Your task to perform on an android device: Turn on the flashlight Image 0: 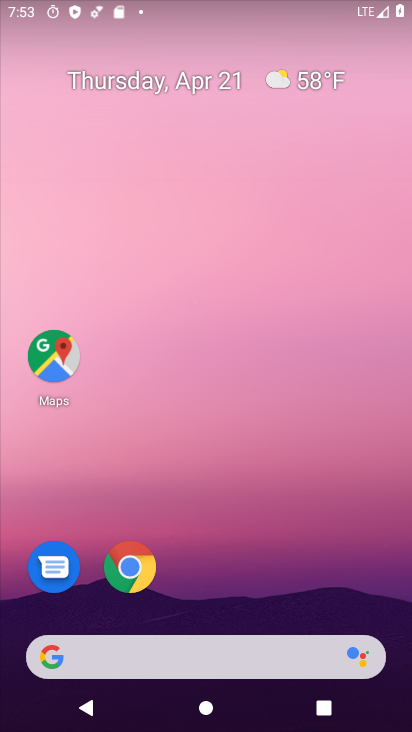
Step 0: drag from (215, 591) to (215, 63)
Your task to perform on an android device: Turn on the flashlight Image 1: 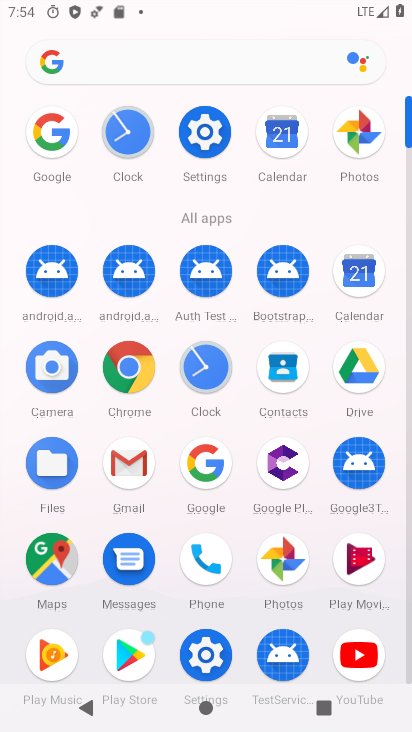
Step 1: click (207, 136)
Your task to perform on an android device: Turn on the flashlight Image 2: 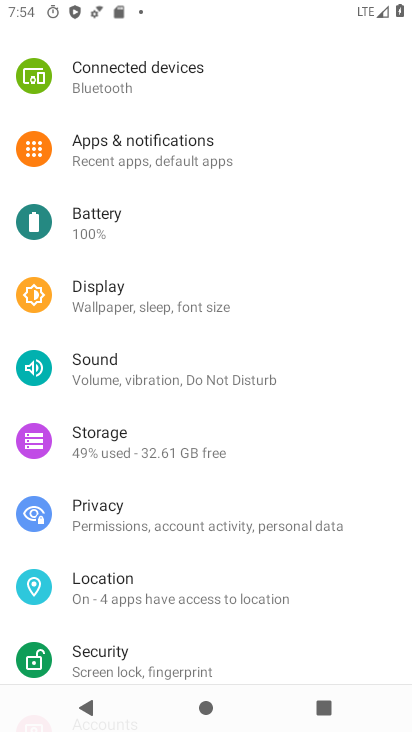
Step 2: drag from (166, 496) to (198, 414)
Your task to perform on an android device: Turn on the flashlight Image 3: 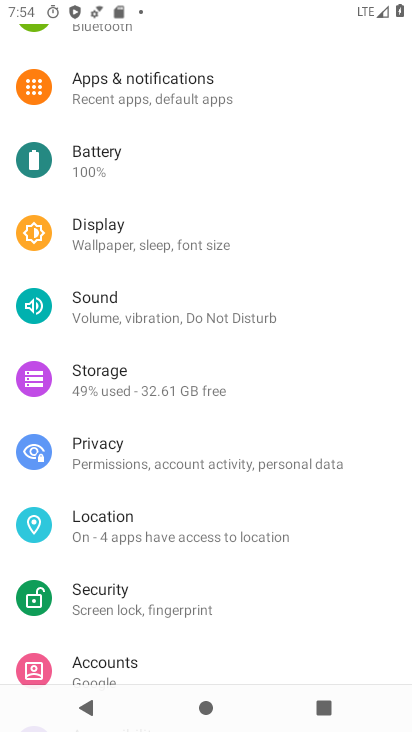
Step 3: drag from (164, 489) to (218, 402)
Your task to perform on an android device: Turn on the flashlight Image 4: 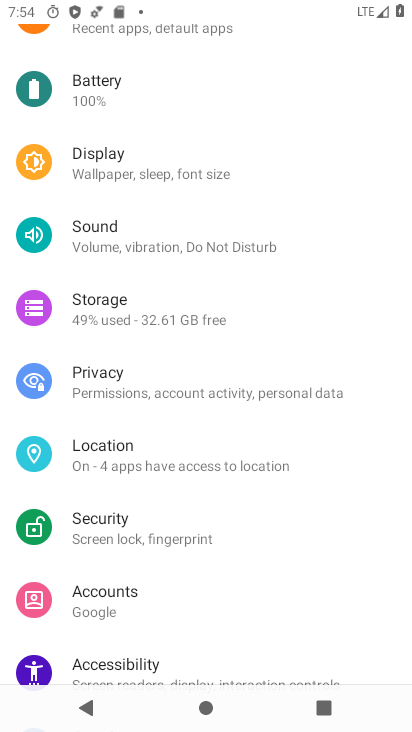
Step 4: drag from (162, 495) to (220, 416)
Your task to perform on an android device: Turn on the flashlight Image 5: 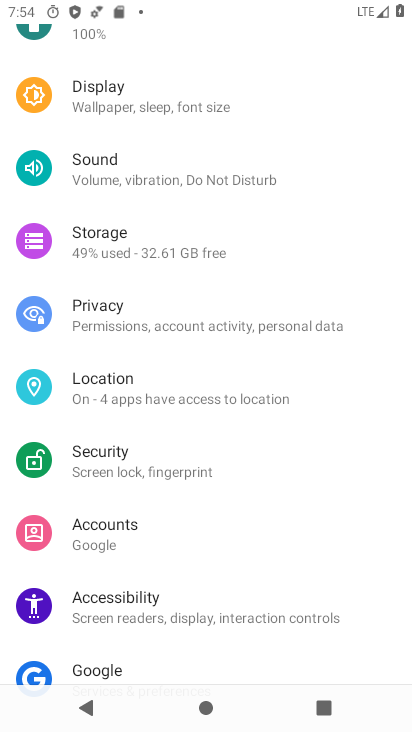
Step 5: drag from (166, 509) to (230, 417)
Your task to perform on an android device: Turn on the flashlight Image 6: 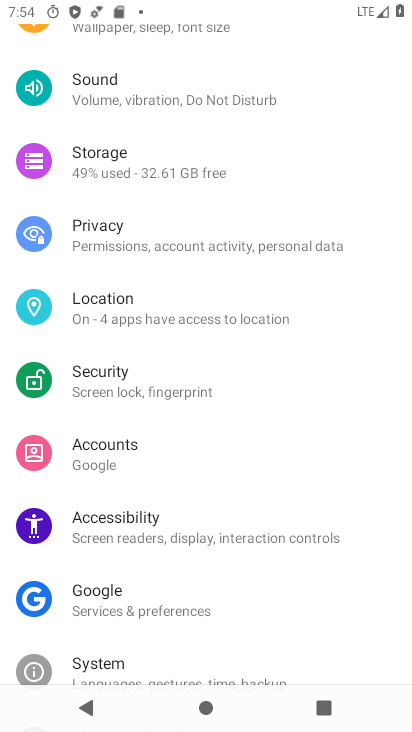
Step 6: click (209, 532)
Your task to perform on an android device: Turn on the flashlight Image 7: 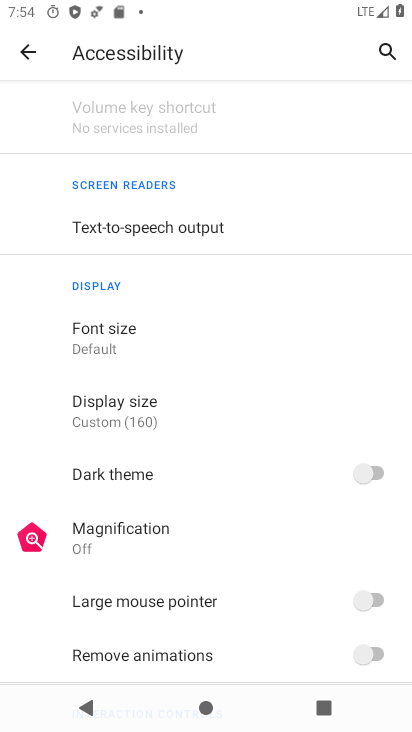
Step 7: drag from (193, 557) to (234, 488)
Your task to perform on an android device: Turn on the flashlight Image 8: 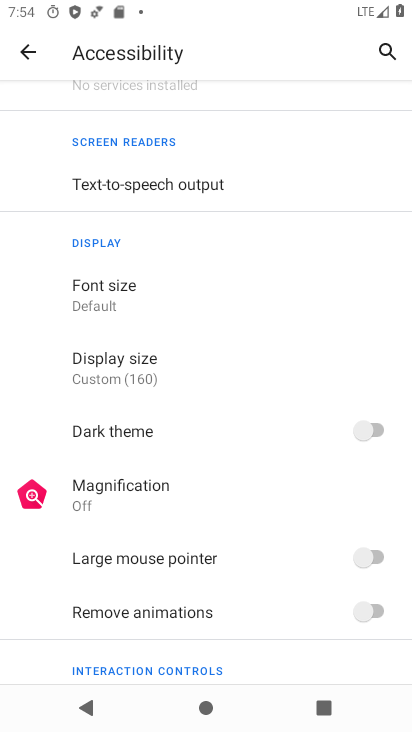
Step 8: drag from (181, 586) to (236, 510)
Your task to perform on an android device: Turn on the flashlight Image 9: 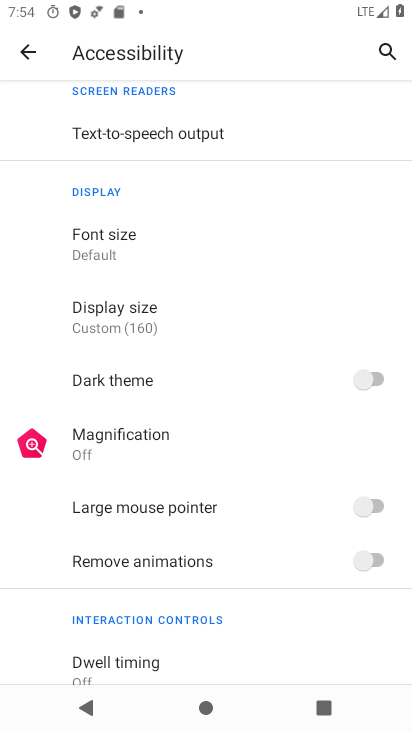
Step 9: drag from (223, 626) to (272, 527)
Your task to perform on an android device: Turn on the flashlight Image 10: 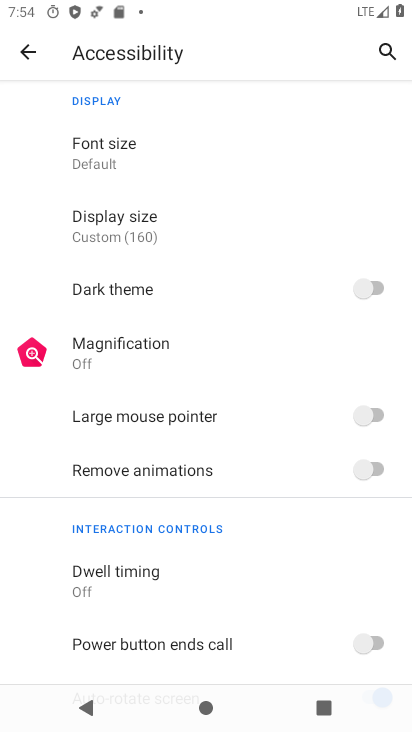
Step 10: drag from (221, 583) to (290, 491)
Your task to perform on an android device: Turn on the flashlight Image 11: 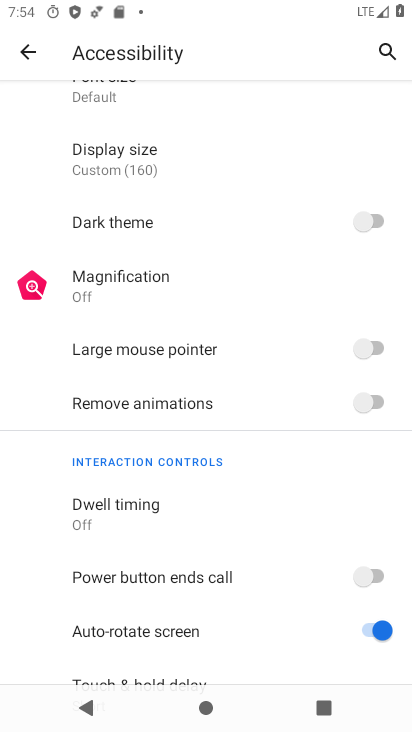
Step 11: drag from (269, 568) to (313, 518)
Your task to perform on an android device: Turn on the flashlight Image 12: 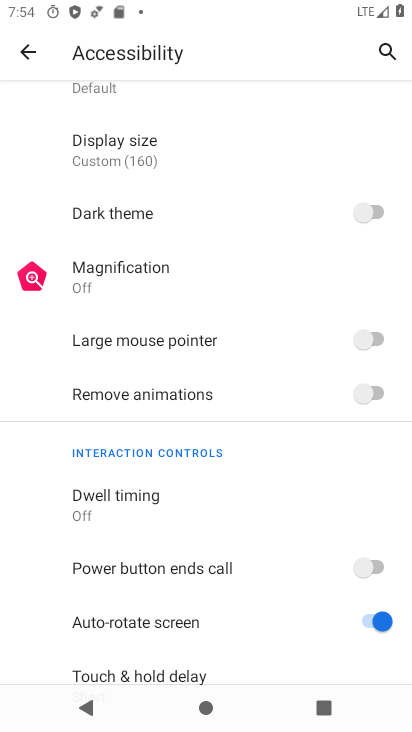
Step 12: drag from (207, 636) to (313, 511)
Your task to perform on an android device: Turn on the flashlight Image 13: 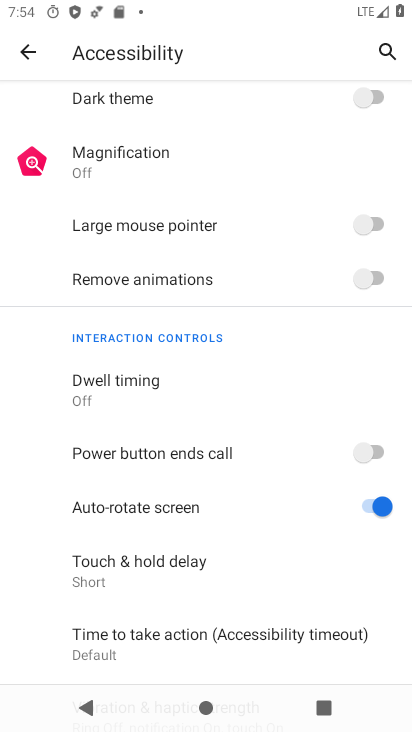
Step 13: drag from (245, 598) to (320, 502)
Your task to perform on an android device: Turn on the flashlight Image 14: 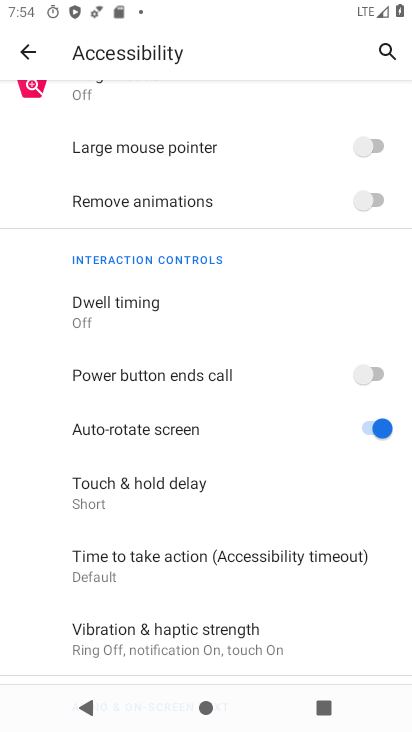
Step 14: drag from (228, 606) to (264, 513)
Your task to perform on an android device: Turn on the flashlight Image 15: 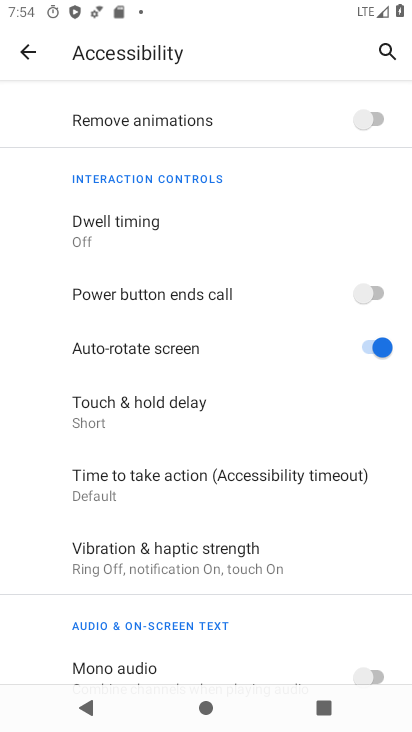
Step 15: drag from (232, 628) to (323, 504)
Your task to perform on an android device: Turn on the flashlight Image 16: 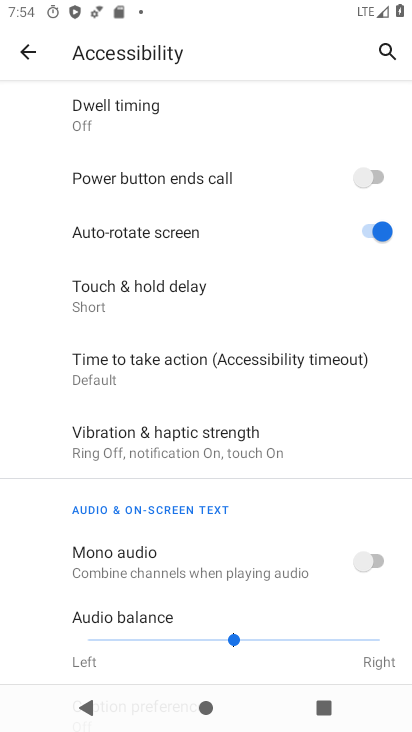
Step 16: drag from (256, 544) to (281, 383)
Your task to perform on an android device: Turn on the flashlight Image 17: 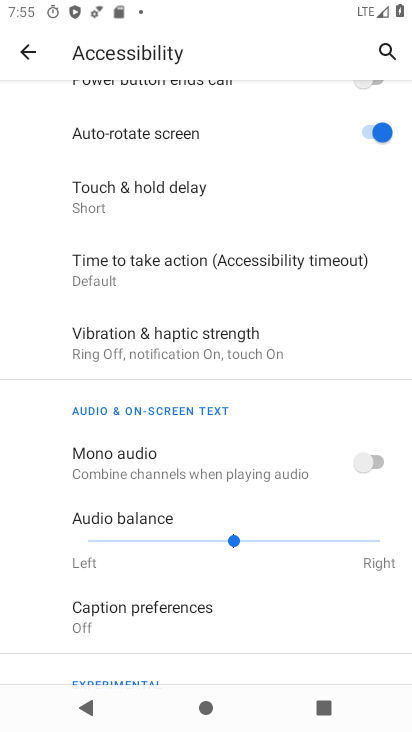
Step 17: drag from (211, 651) to (317, 484)
Your task to perform on an android device: Turn on the flashlight Image 18: 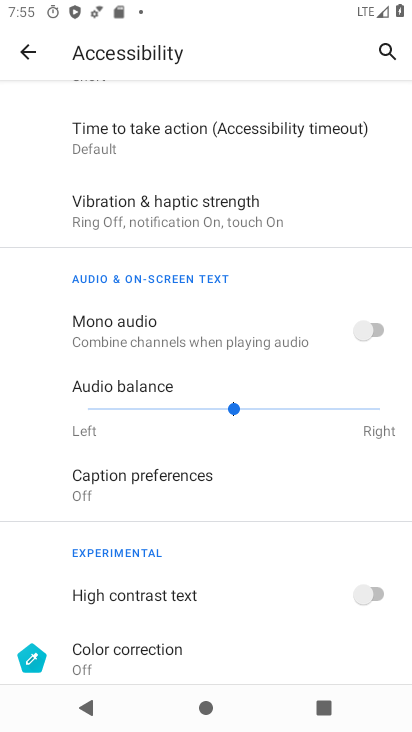
Step 18: drag from (256, 589) to (339, 471)
Your task to perform on an android device: Turn on the flashlight Image 19: 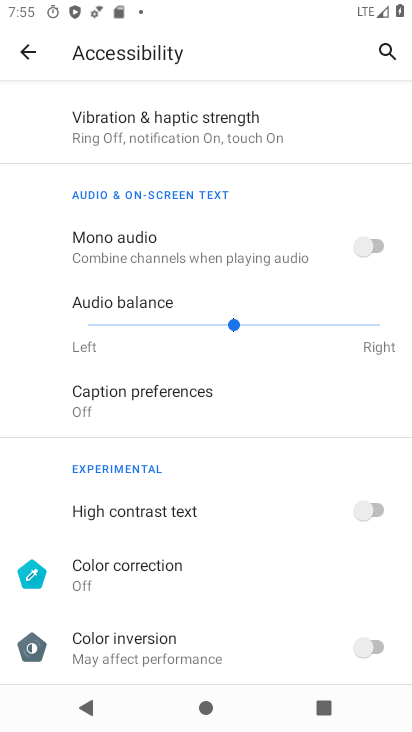
Step 19: drag from (251, 616) to (329, 459)
Your task to perform on an android device: Turn on the flashlight Image 20: 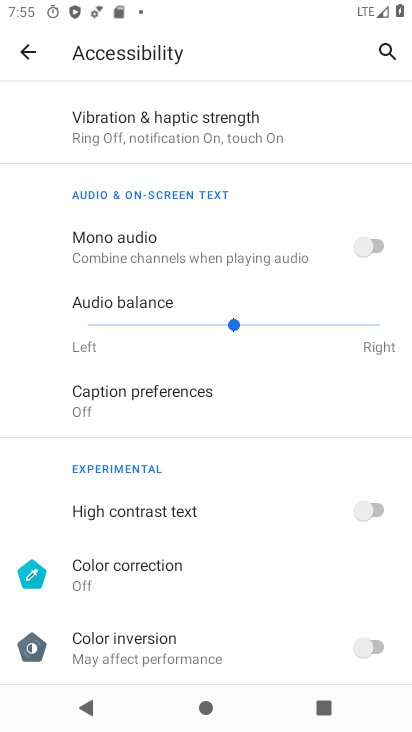
Step 20: press back button
Your task to perform on an android device: Turn on the flashlight Image 21: 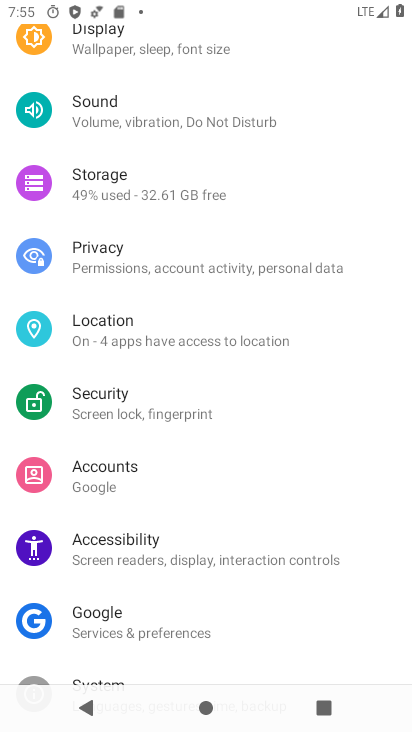
Step 21: drag from (255, 182) to (268, 313)
Your task to perform on an android device: Turn on the flashlight Image 22: 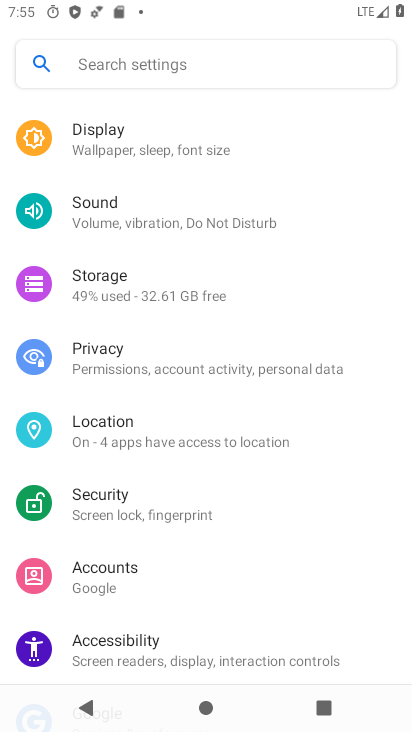
Step 22: drag from (279, 189) to (293, 266)
Your task to perform on an android device: Turn on the flashlight Image 23: 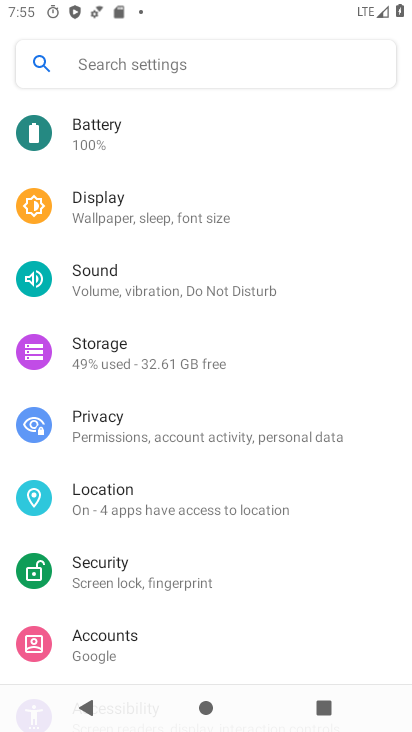
Step 23: click (197, 223)
Your task to perform on an android device: Turn on the flashlight Image 24: 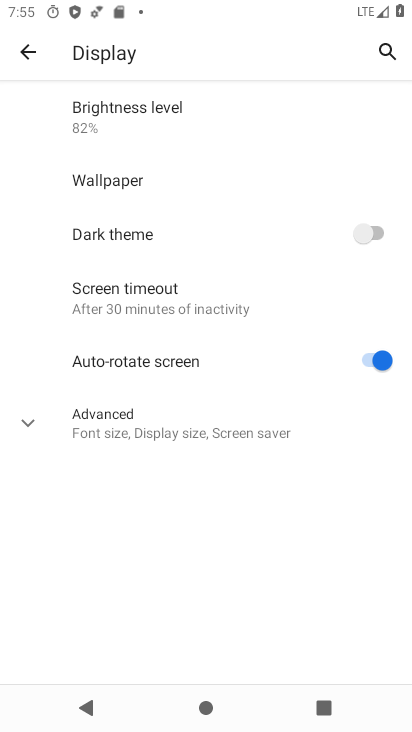
Step 24: task complete